Your task to perform on an android device: When is my next meeting? Image 0: 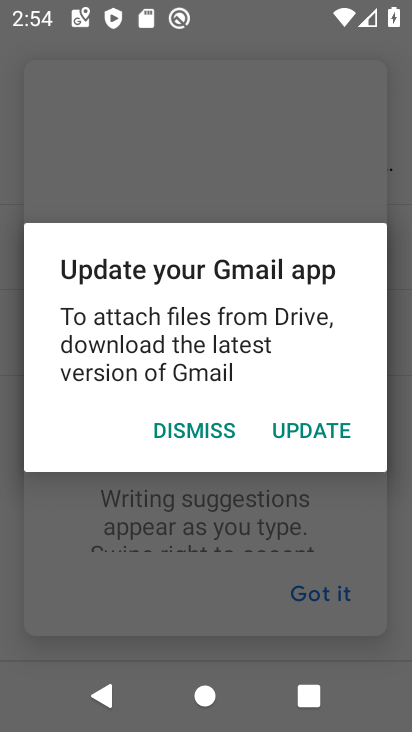
Step 0: press home button
Your task to perform on an android device: When is my next meeting? Image 1: 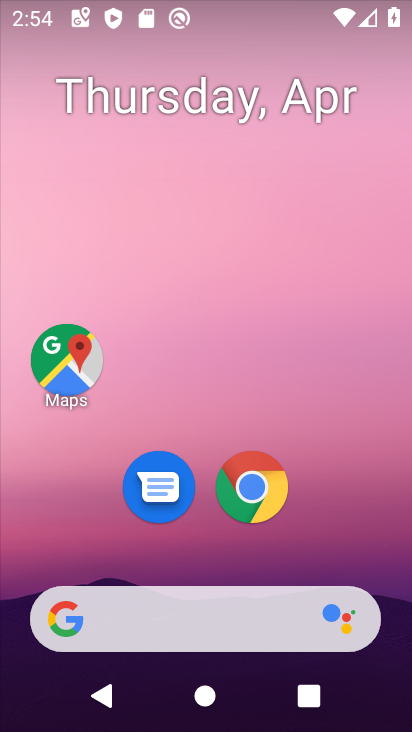
Step 1: drag from (244, 580) to (263, 387)
Your task to perform on an android device: When is my next meeting? Image 2: 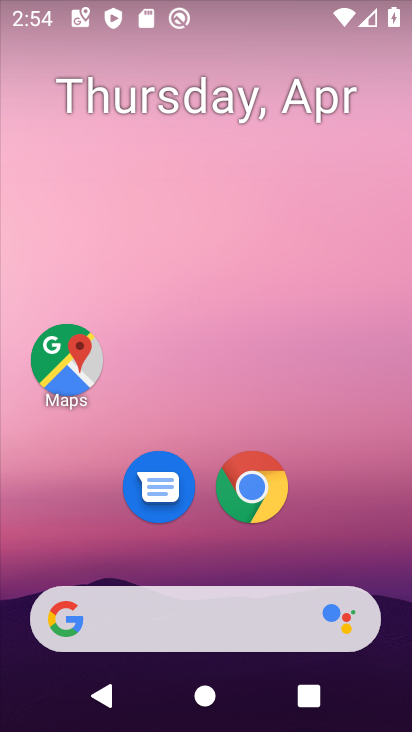
Step 2: drag from (346, 555) to (316, 363)
Your task to perform on an android device: When is my next meeting? Image 3: 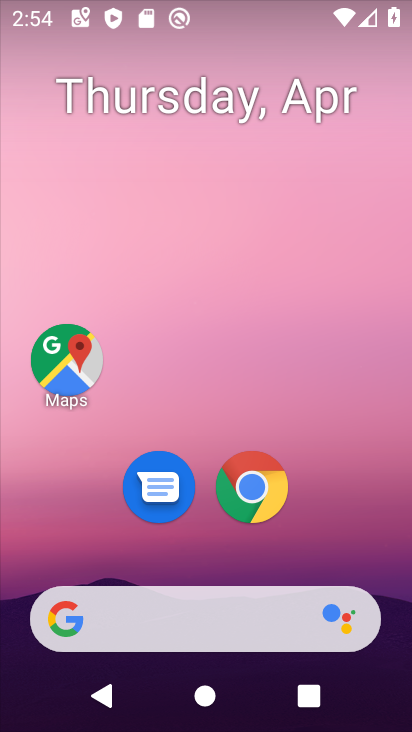
Step 3: drag from (307, 506) to (305, 197)
Your task to perform on an android device: When is my next meeting? Image 4: 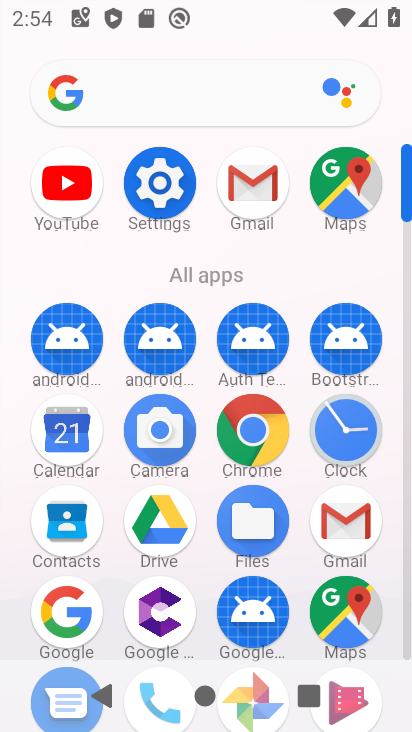
Step 4: click (69, 424)
Your task to perform on an android device: When is my next meeting? Image 5: 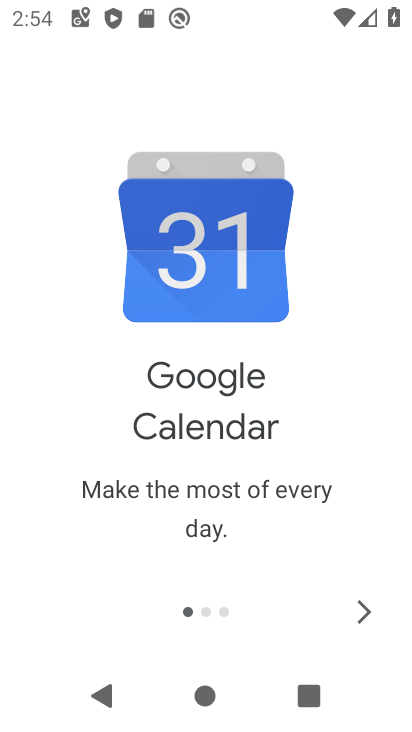
Step 5: click (361, 619)
Your task to perform on an android device: When is my next meeting? Image 6: 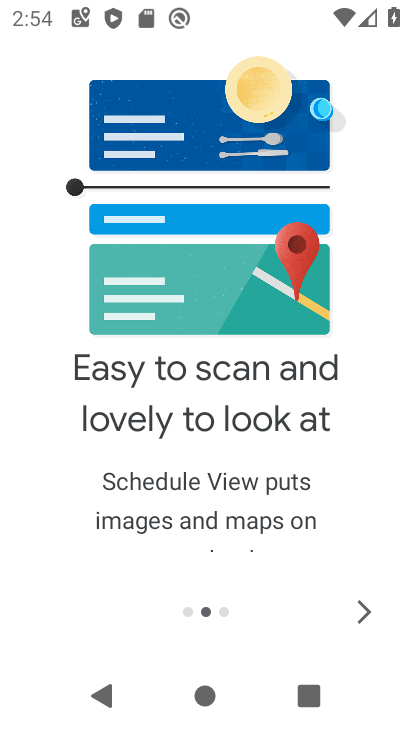
Step 6: click (364, 618)
Your task to perform on an android device: When is my next meeting? Image 7: 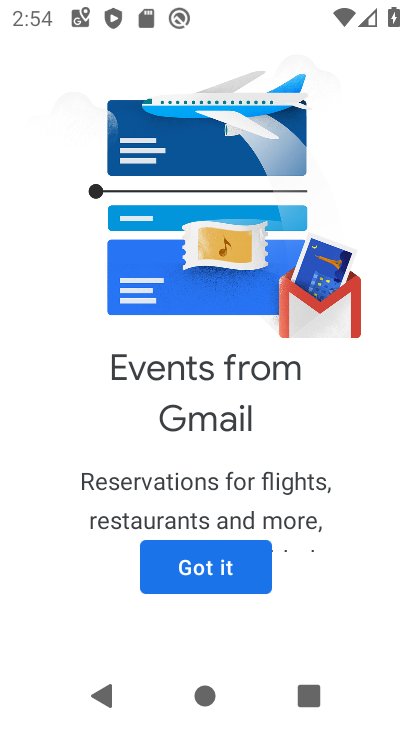
Step 7: click (220, 579)
Your task to perform on an android device: When is my next meeting? Image 8: 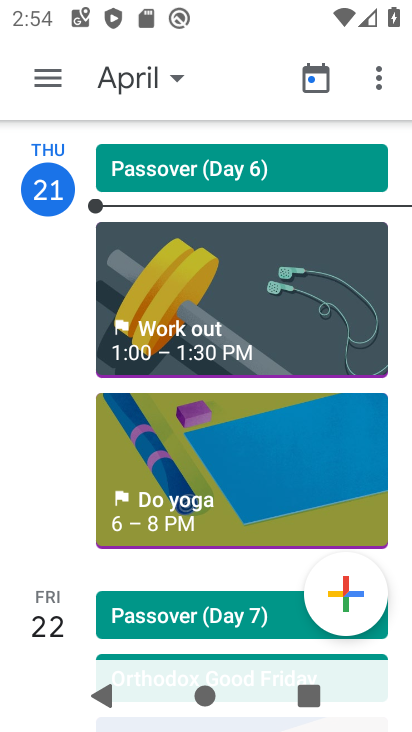
Step 8: click (155, 83)
Your task to perform on an android device: When is my next meeting? Image 9: 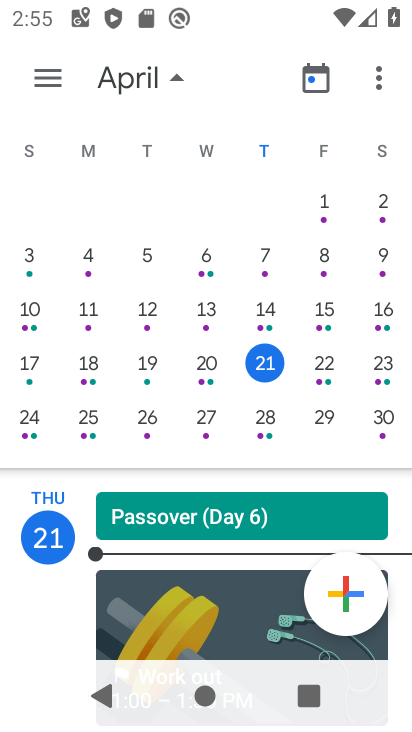
Step 9: task complete